Your task to perform on an android device: add a contact Image 0: 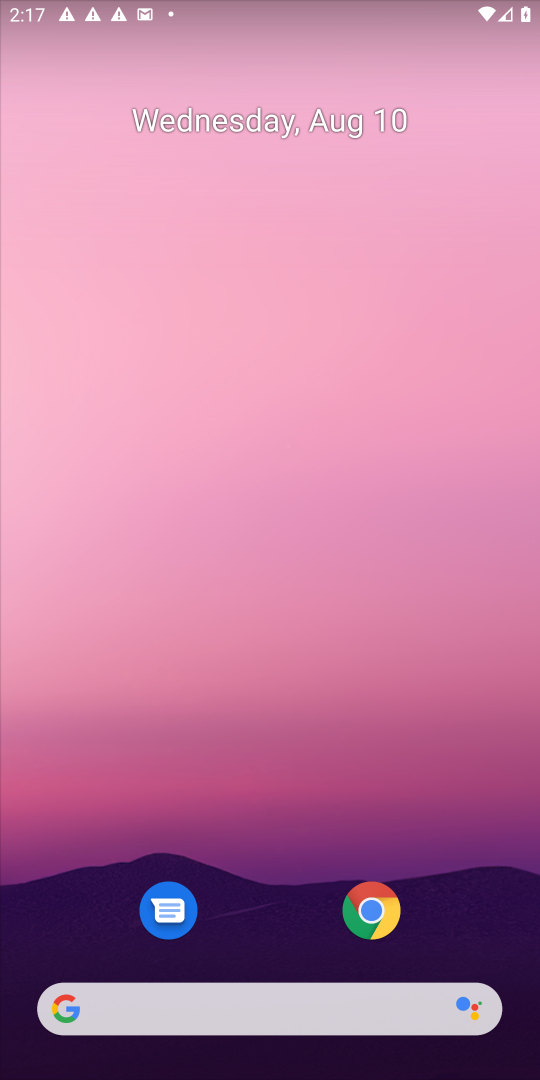
Step 0: drag from (264, 961) to (278, 258)
Your task to perform on an android device: add a contact Image 1: 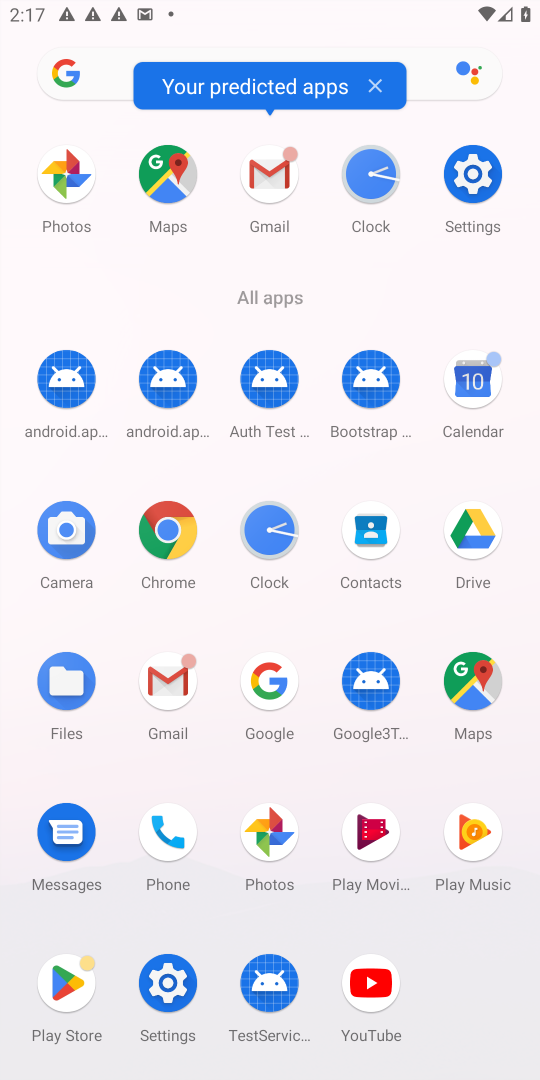
Step 1: click (360, 548)
Your task to perform on an android device: add a contact Image 2: 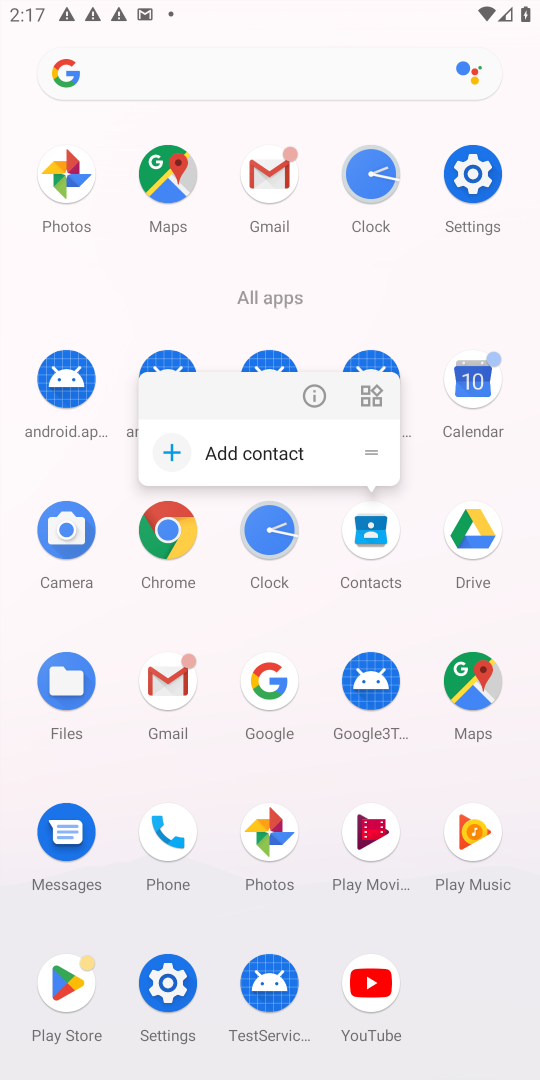
Step 2: click (247, 455)
Your task to perform on an android device: add a contact Image 3: 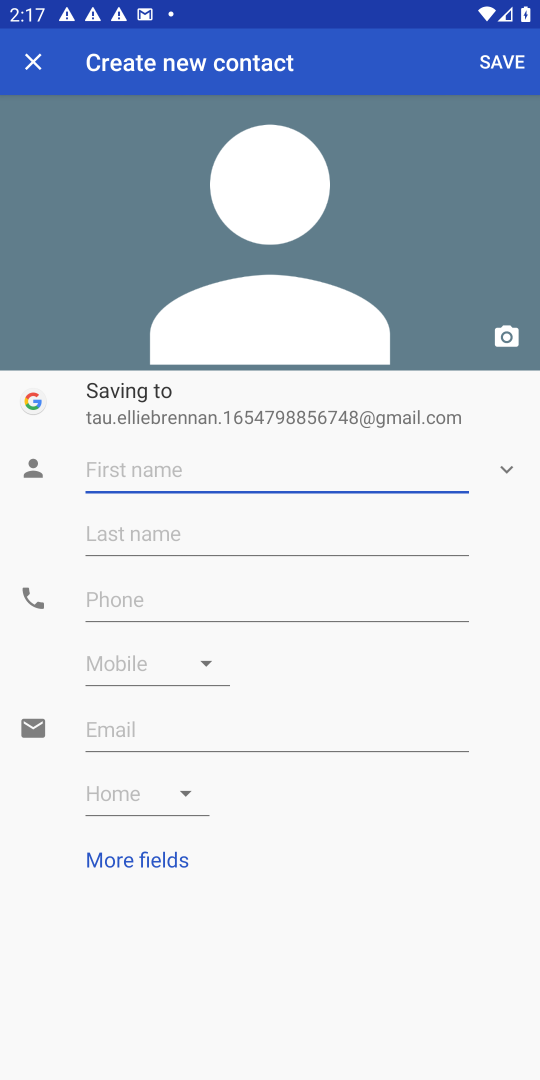
Step 3: type "vbjh"
Your task to perform on an android device: add a contact Image 4: 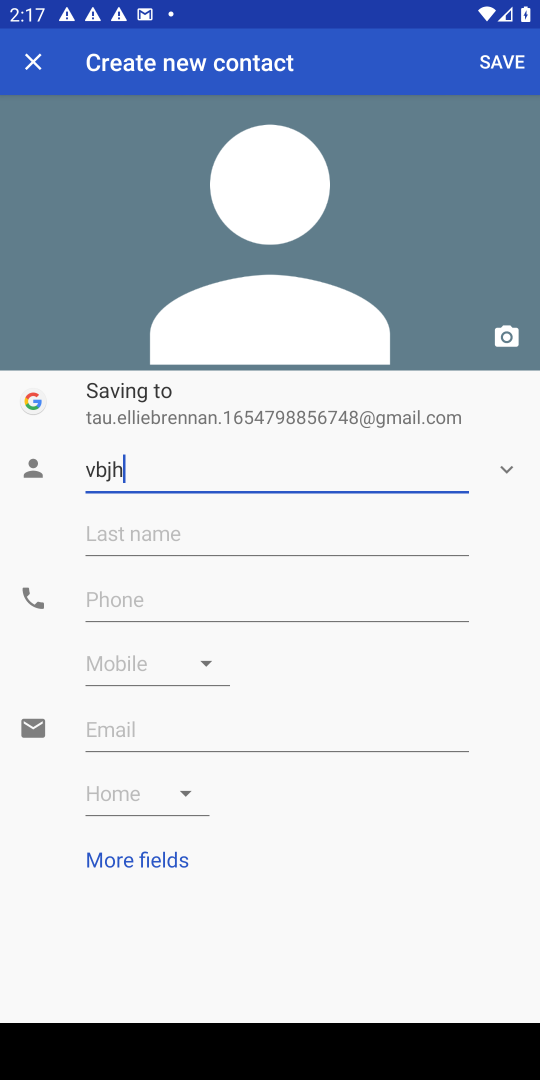
Step 4: click (128, 595)
Your task to perform on an android device: add a contact Image 5: 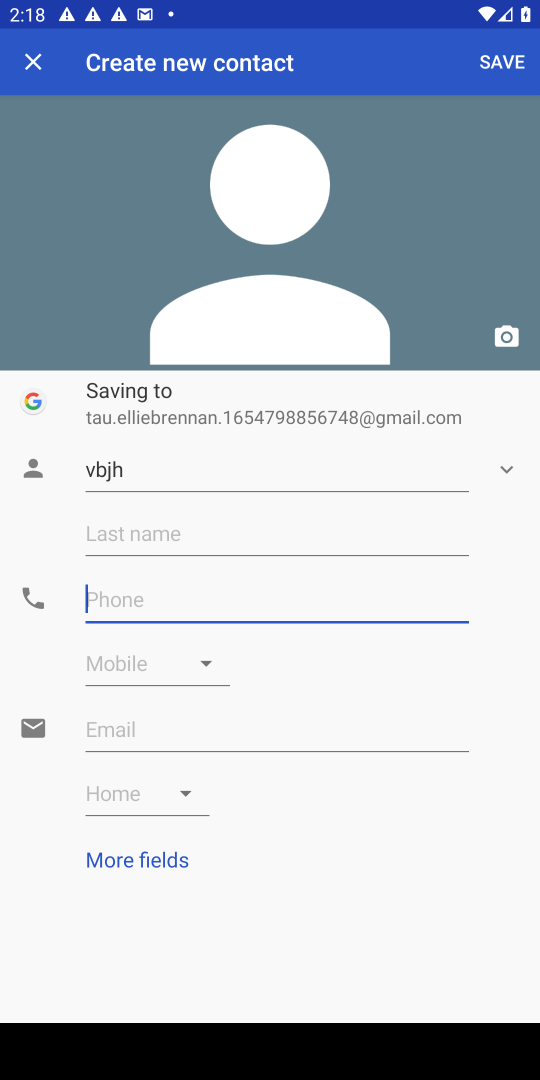
Step 5: type "43435"
Your task to perform on an android device: add a contact Image 6: 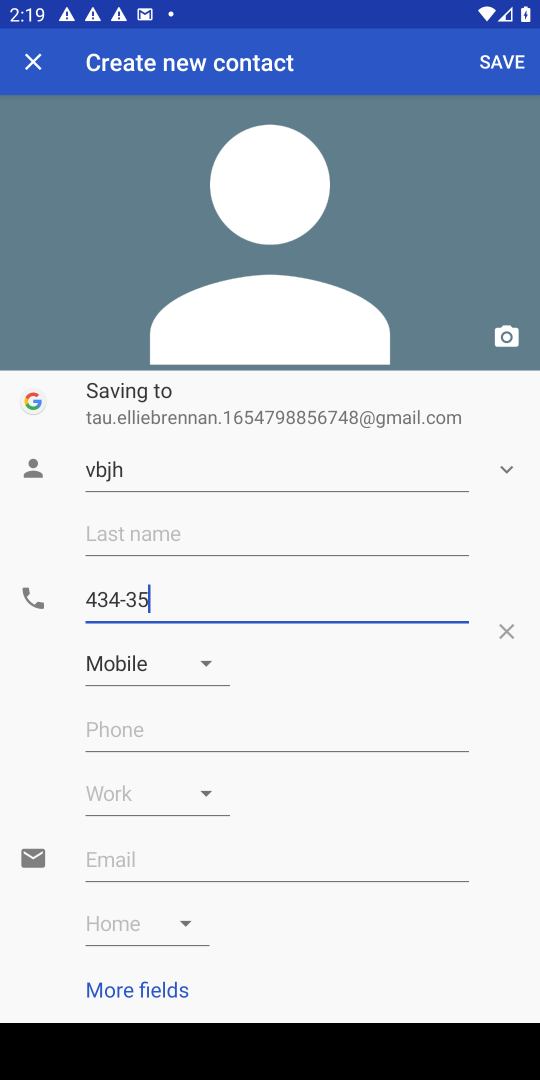
Step 6: click (504, 67)
Your task to perform on an android device: add a contact Image 7: 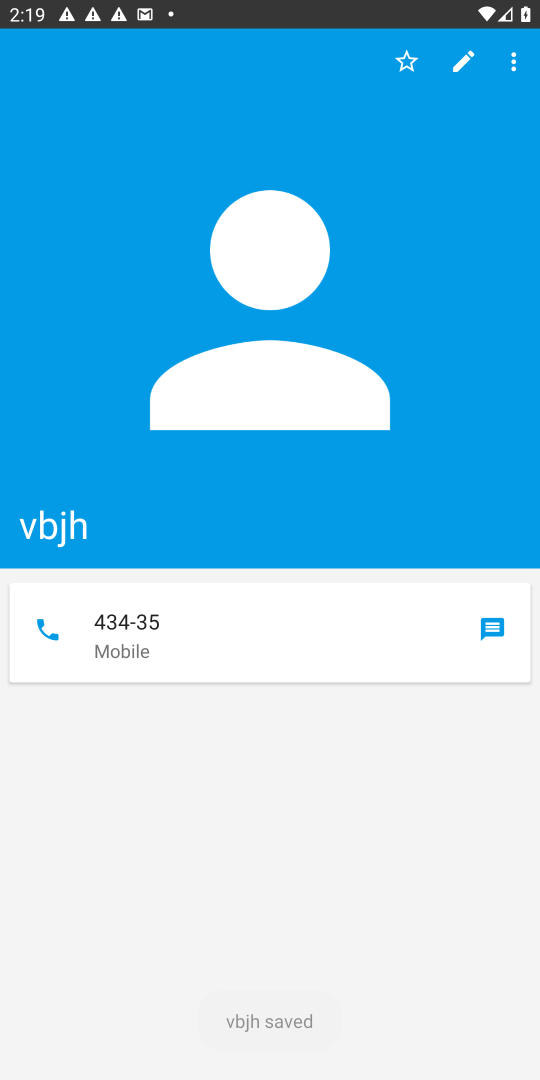
Step 7: task complete